Your task to perform on an android device: Open Yahoo.com Image 0: 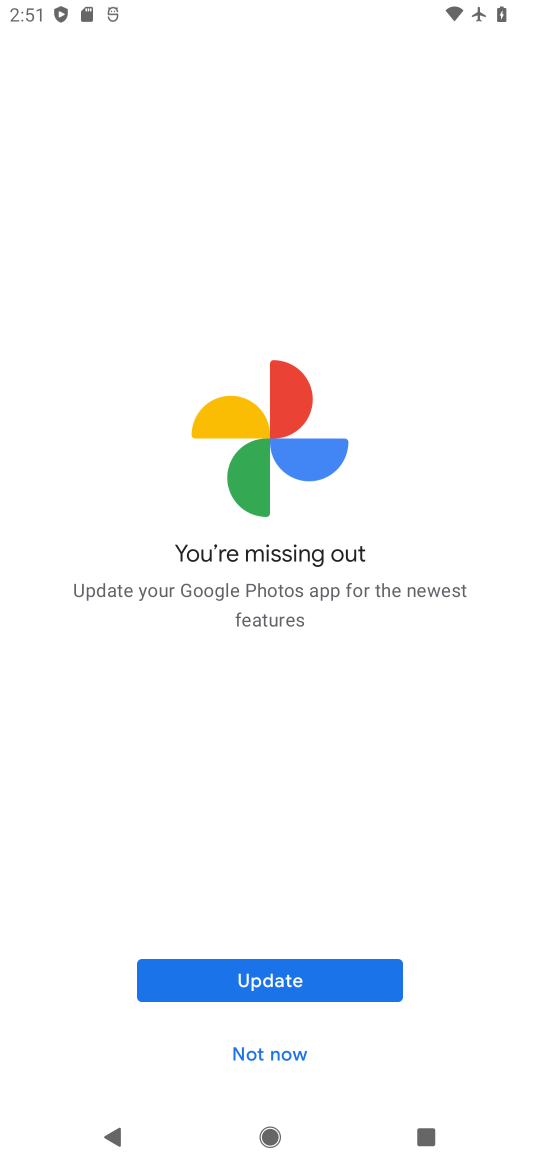
Step 0: press home button
Your task to perform on an android device: Open Yahoo.com Image 1: 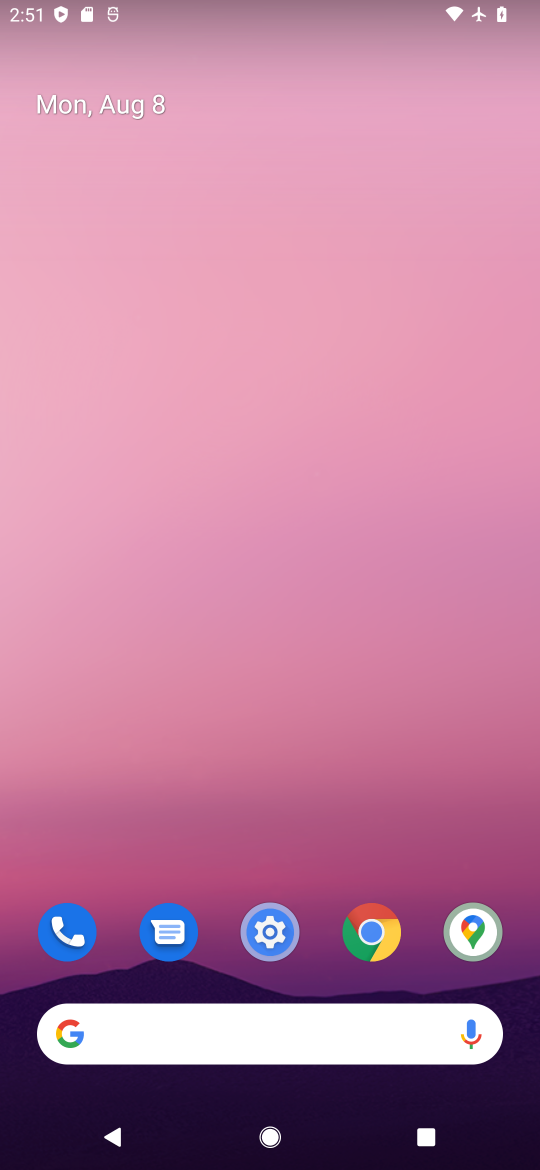
Step 1: drag from (326, 958) to (401, 375)
Your task to perform on an android device: Open Yahoo.com Image 2: 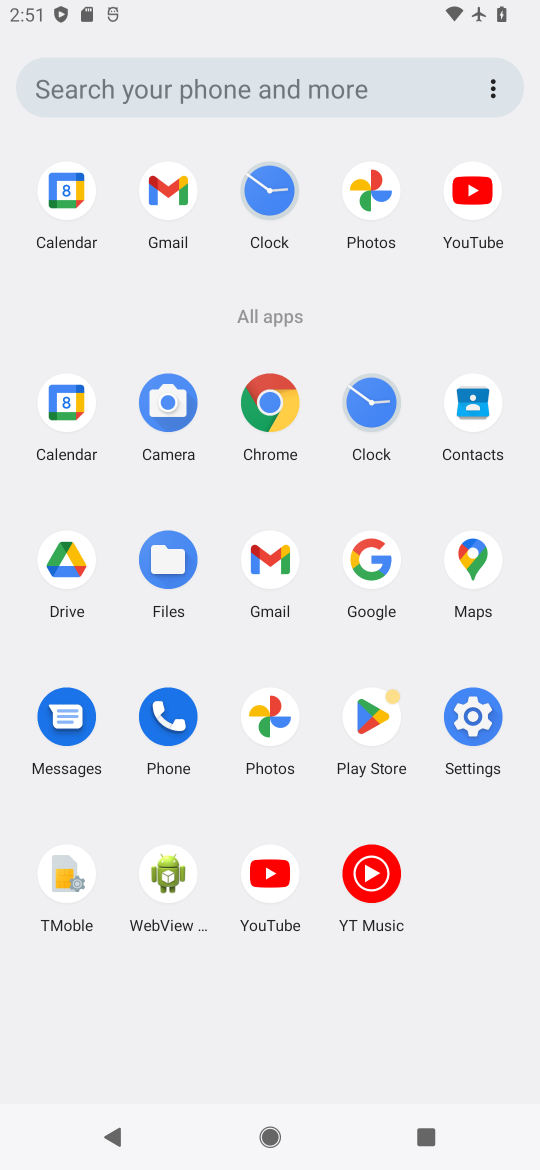
Step 2: click (264, 389)
Your task to perform on an android device: Open Yahoo.com Image 3: 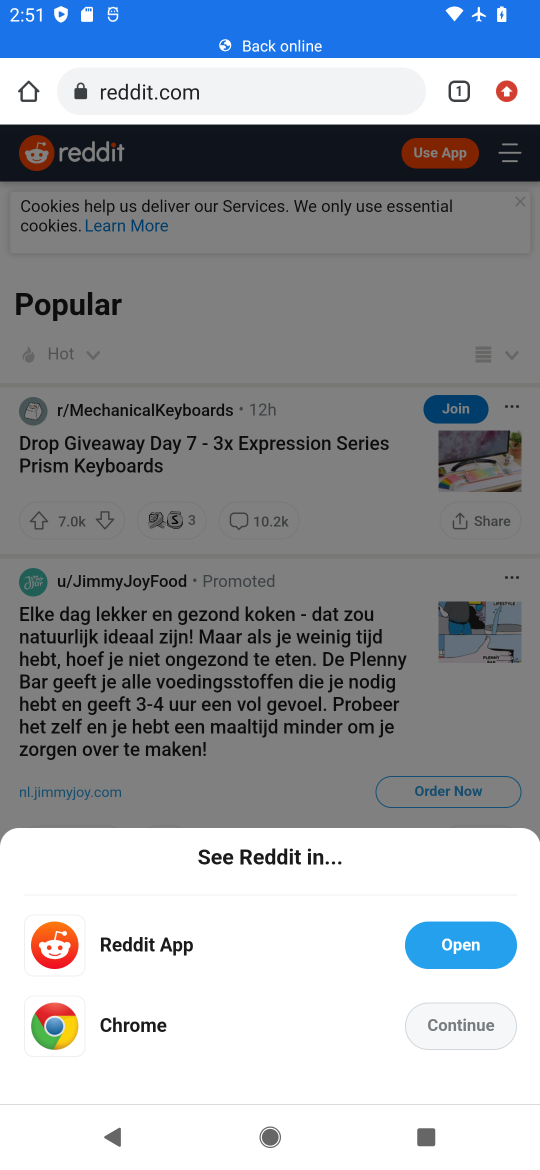
Step 3: click (359, 83)
Your task to perform on an android device: Open Yahoo.com Image 4: 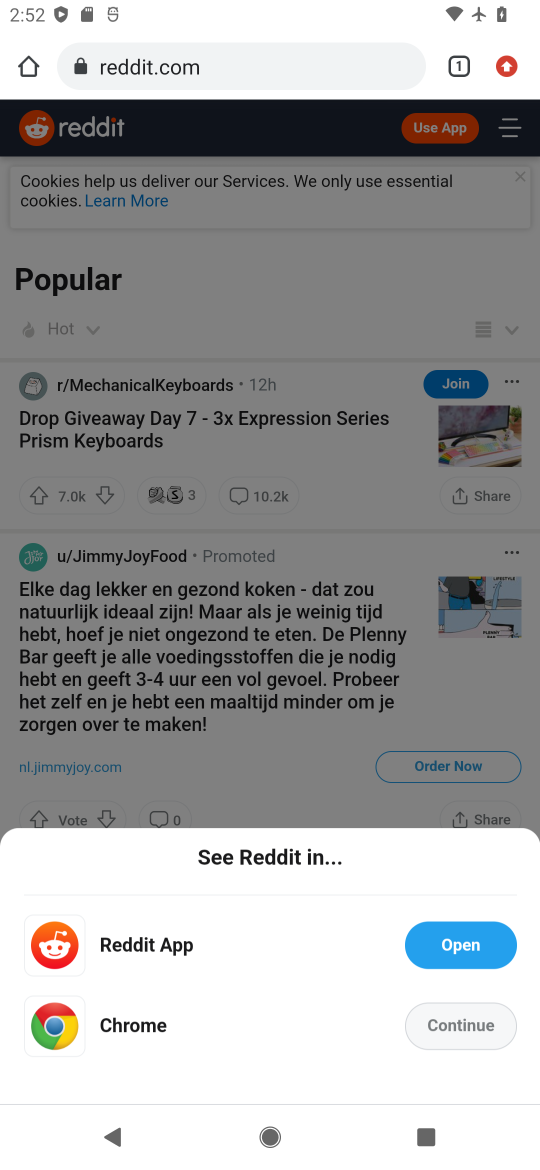
Step 4: click (363, 65)
Your task to perform on an android device: Open Yahoo.com Image 5: 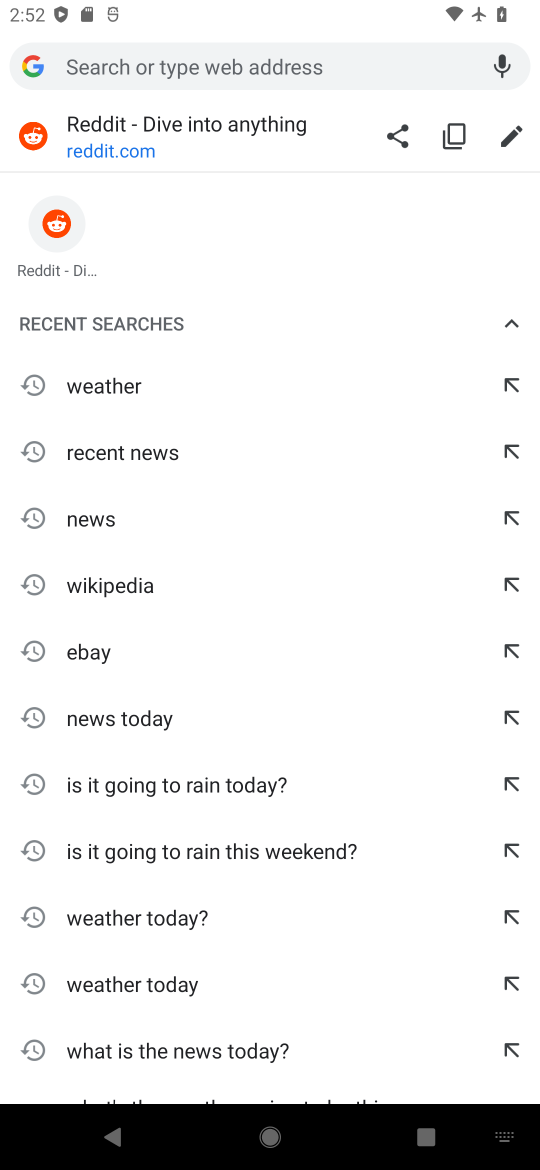
Step 5: type "yahoo.com"
Your task to perform on an android device: Open Yahoo.com Image 6: 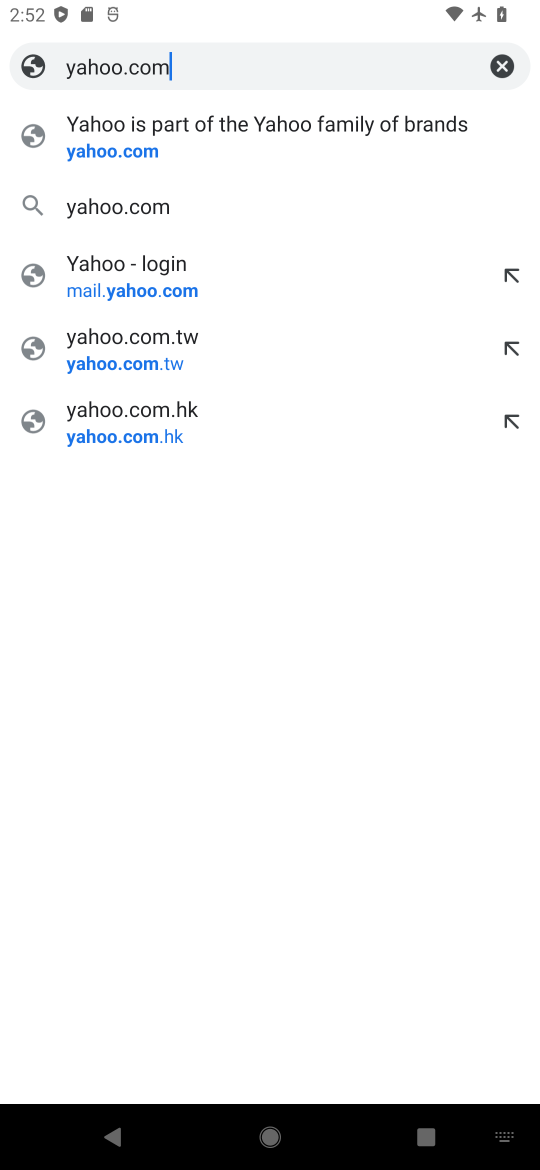
Step 6: click (146, 135)
Your task to perform on an android device: Open Yahoo.com Image 7: 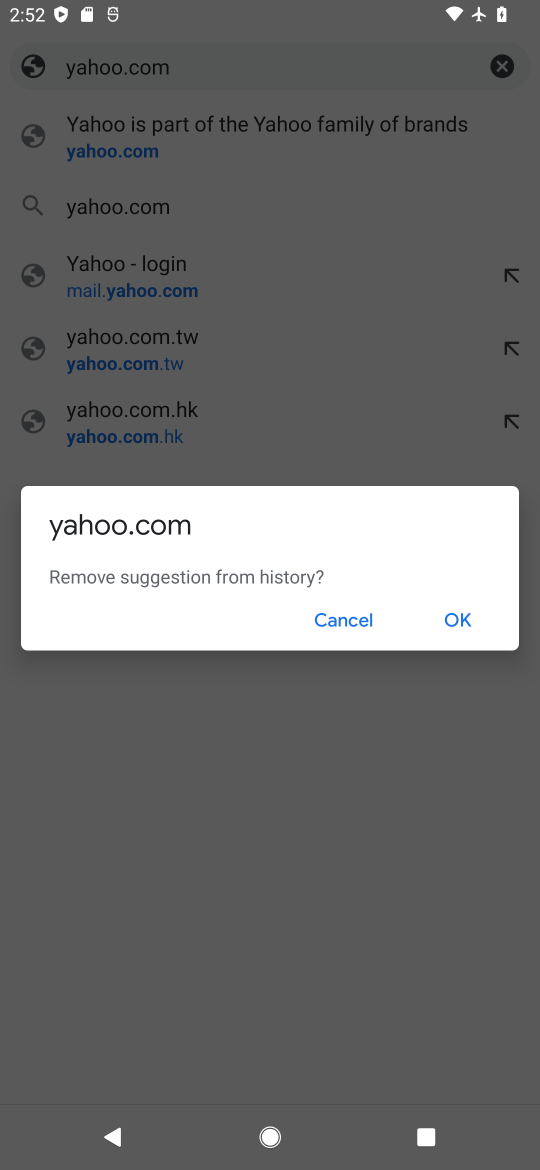
Step 7: click (347, 631)
Your task to perform on an android device: Open Yahoo.com Image 8: 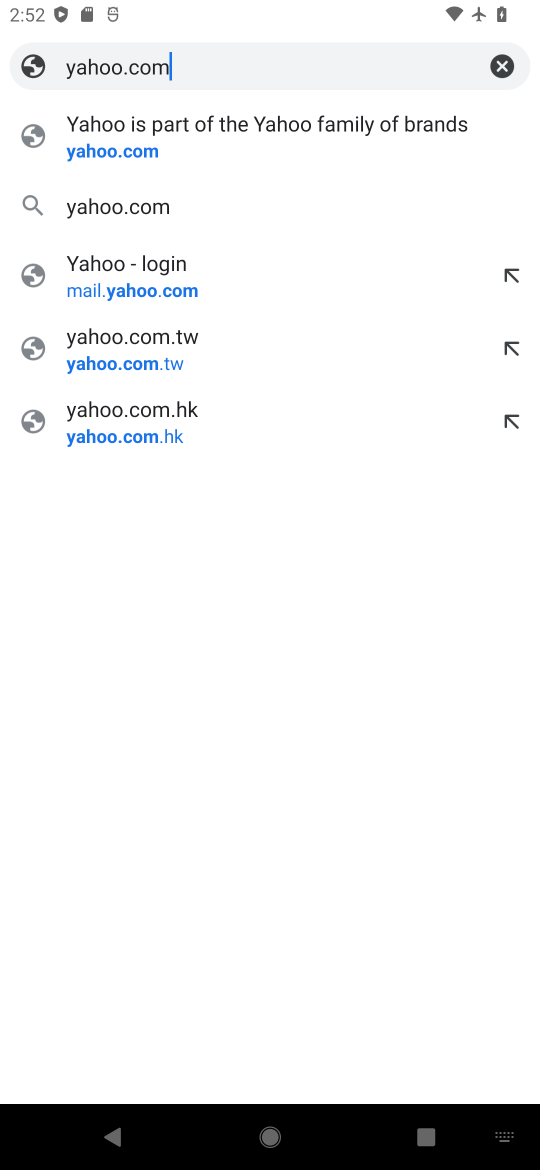
Step 8: click (117, 152)
Your task to perform on an android device: Open Yahoo.com Image 9: 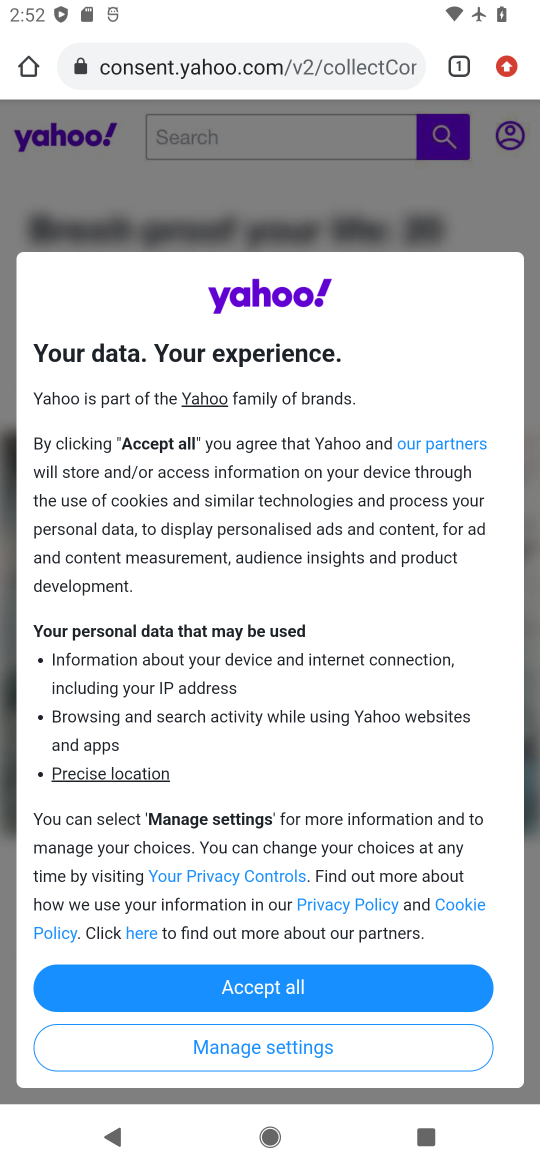
Step 9: task complete